Your task to perform on an android device: turn on translation in the chrome app Image 0: 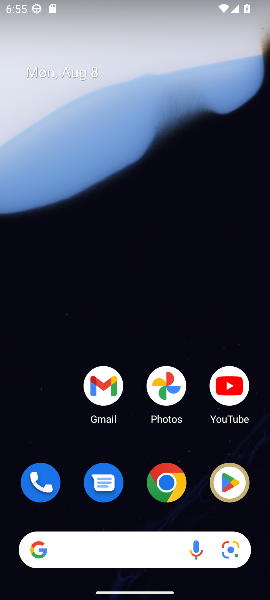
Step 0: drag from (129, 571) to (75, 4)
Your task to perform on an android device: turn on translation in the chrome app Image 1: 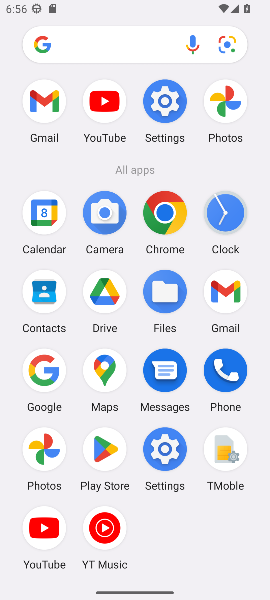
Step 1: click (171, 215)
Your task to perform on an android device: turn on translation in the chrome app Image 2: 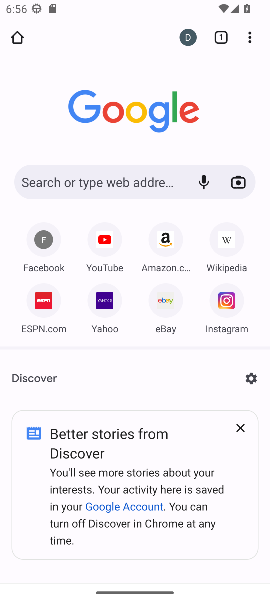
Step 2: drag from (243, 33) to (152, 344)
Your task to perform on an android device: turn on translation in the chrome app Image 3: 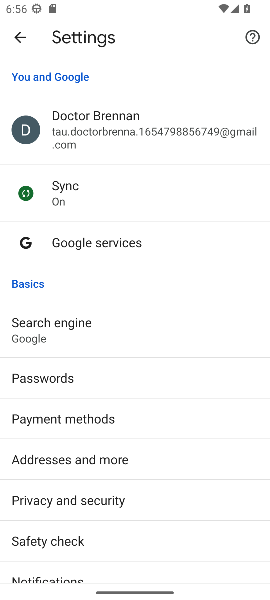
Step 3: drag from (150, 247) to (151, 140)
Your task to perform on an android device: turn on translation in the chrome app Image 4: 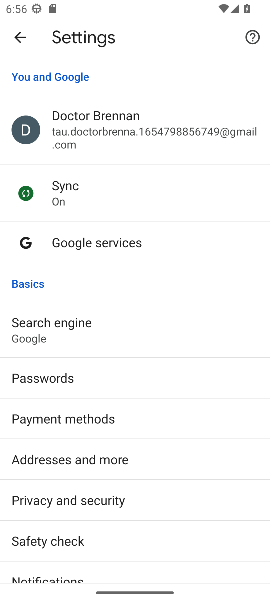
Step 4: drag from (96, 507) to (91, 137)
Your task to perform on an android device: turn on translation in the chrome app Image 5: 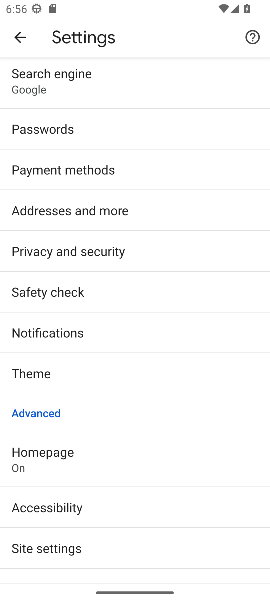
Step 5: drag from (98, 480) to (59, 77)
Your task to perform on an android device: turn on translation in the chrome app Image 6: 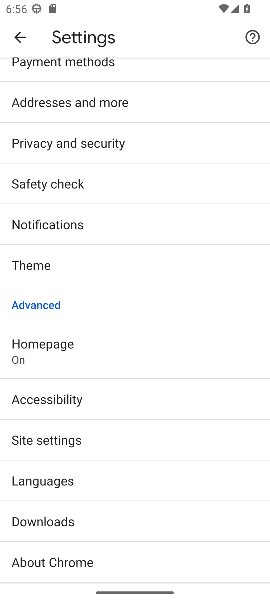
Step 6: click (62, 477)
Your task to perform on an android device: turn on translation in the chrome app Image 7: 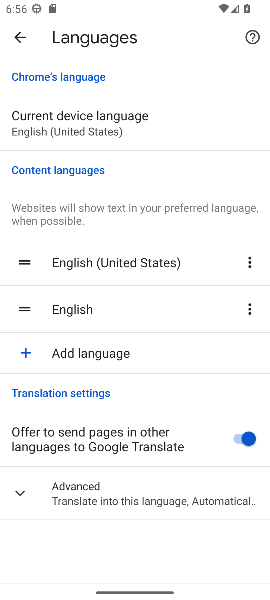
Step 7: task complete